Your task to perform on an android device: What's the weather today? Image 0: 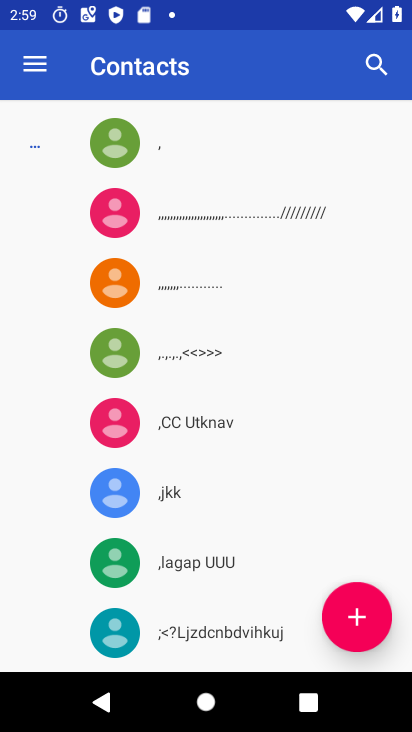
Step 0: press home button
Your task to perform on an android device: What's the weather today? Image 1: 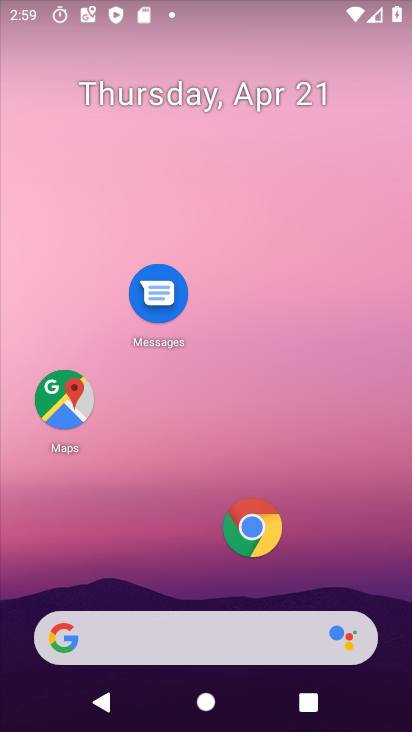
Step 1: drag from (231, 609) to (278, 471)
Your task to perform on an android device: What's the weather today? Image 2: 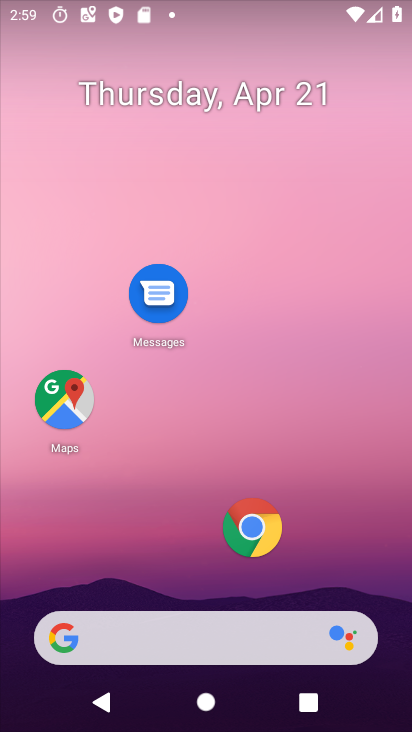
Step 2: drag from (191, 534) to (301, 210)
Your task to perform on an android device: What's the weather today? Image 3: 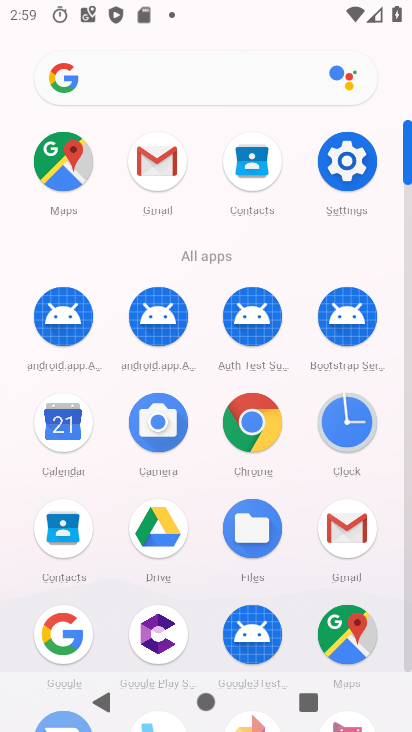
Step 3: click (53, 632)
Your task to perform on an android device: What's the weather today? Image 4: 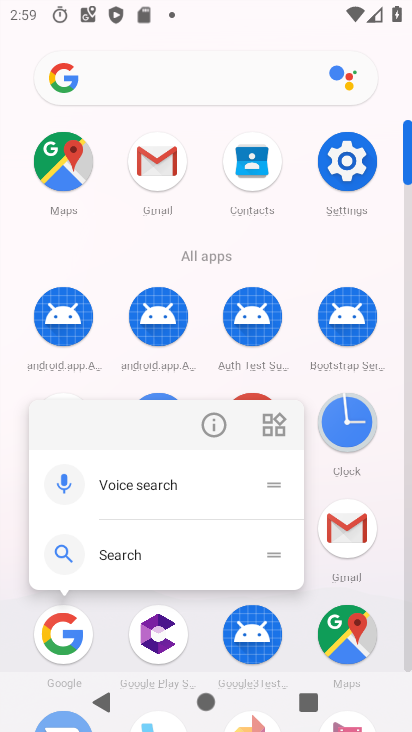
Step 4: click (65, 636)
Your task to perform on an android device: What's the weather today? Image 5: 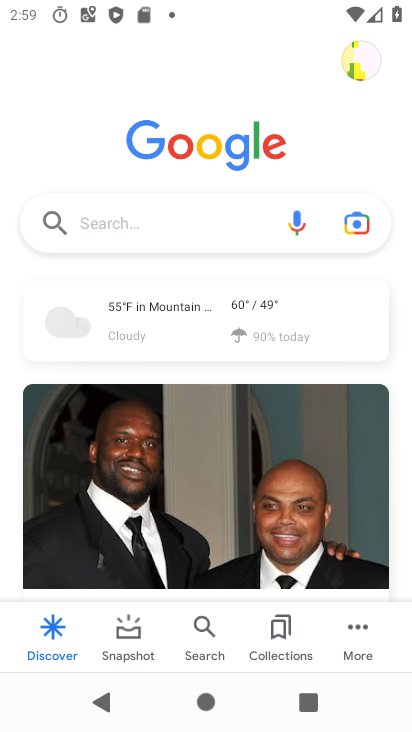
Step 5: click (125, 315)
Your task to perform on an android device: What's the weather today? Image 6: 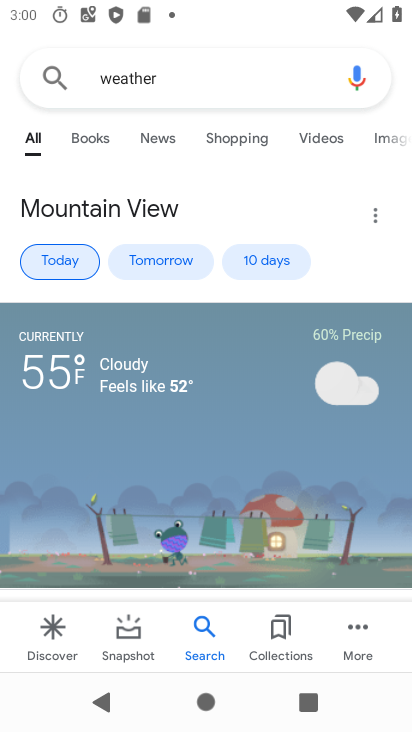
Step 6: task complete